Your task to perform on an android device: Open accessibility settings Image 0: 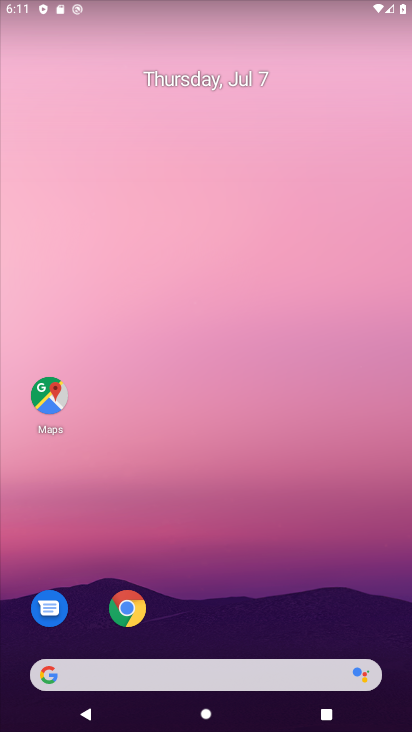
Step 0: drag from (206, 551) to (206, 29)
Your task to perform on an android device: Open accessibility settings Image 1: 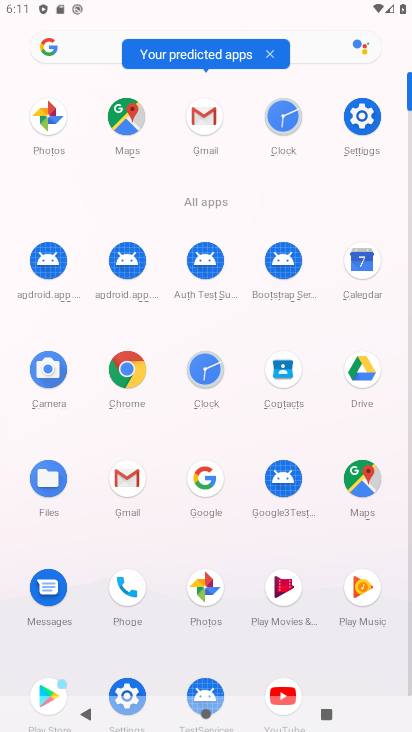
Step 1: click (362, 117)
Your task to perform on an android device: Open accessibility settings Image 2: 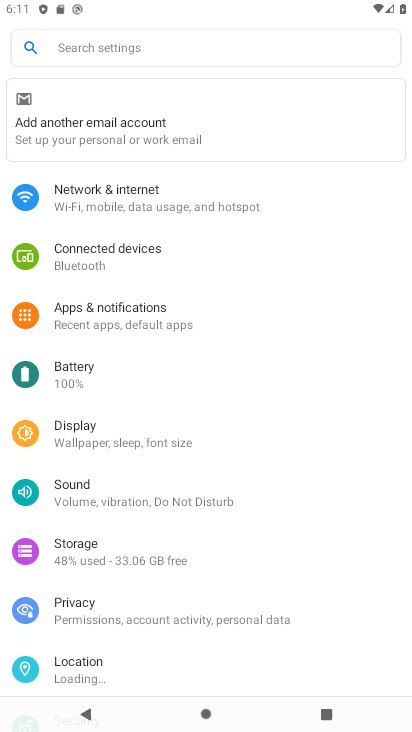
Step 2: drag from (126, 611) to (194, 58)
Your task to perform on an android device: Open accessibility settings Image 3: 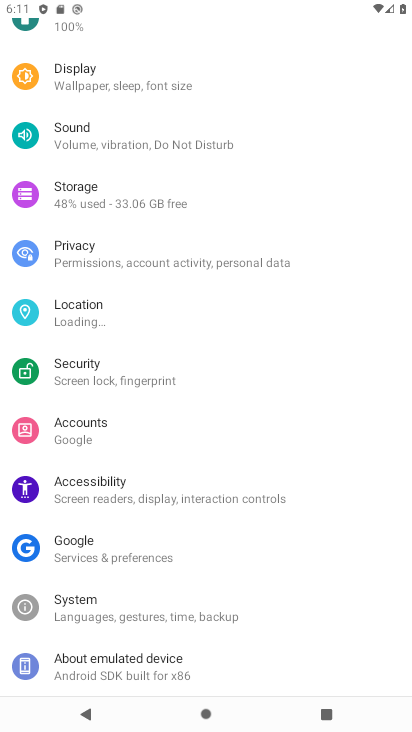
Step 3: click (97, 492)
Your task to perform on an android device: Open accessibility settings Image 4: 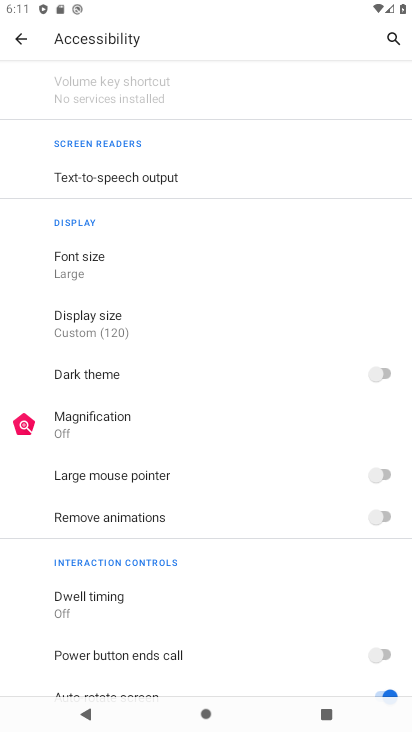
Step 4: task complete